Your task to perform on an android device: View the shopping cart on amazon.com. Add "amazon basics triple a" to the cart on amazon.com, then select checkout. Image 0: 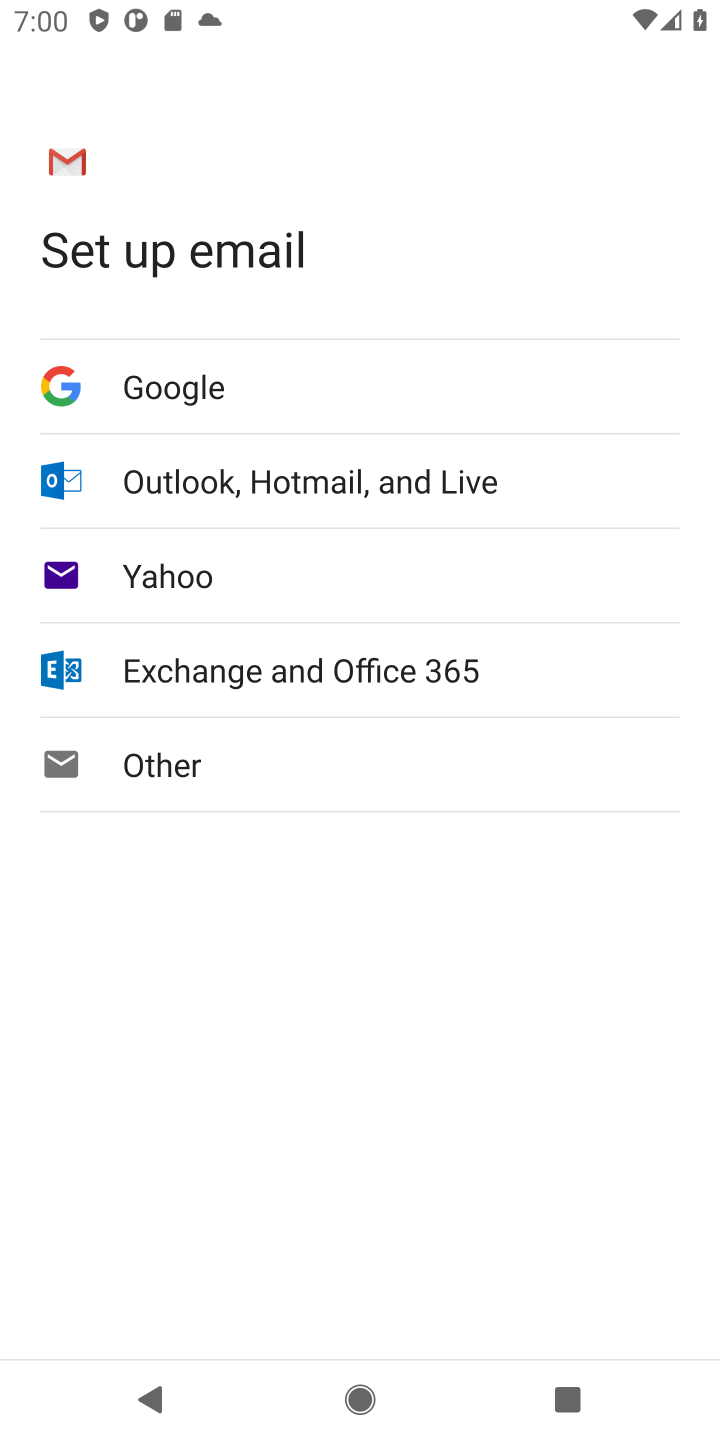
Step 0: press home button
Your task to perform on an android device: View the shopping cart on amazon.com. Add "amazon basics triple a" to the cart on amazon.com, then select checkout. Image 1: 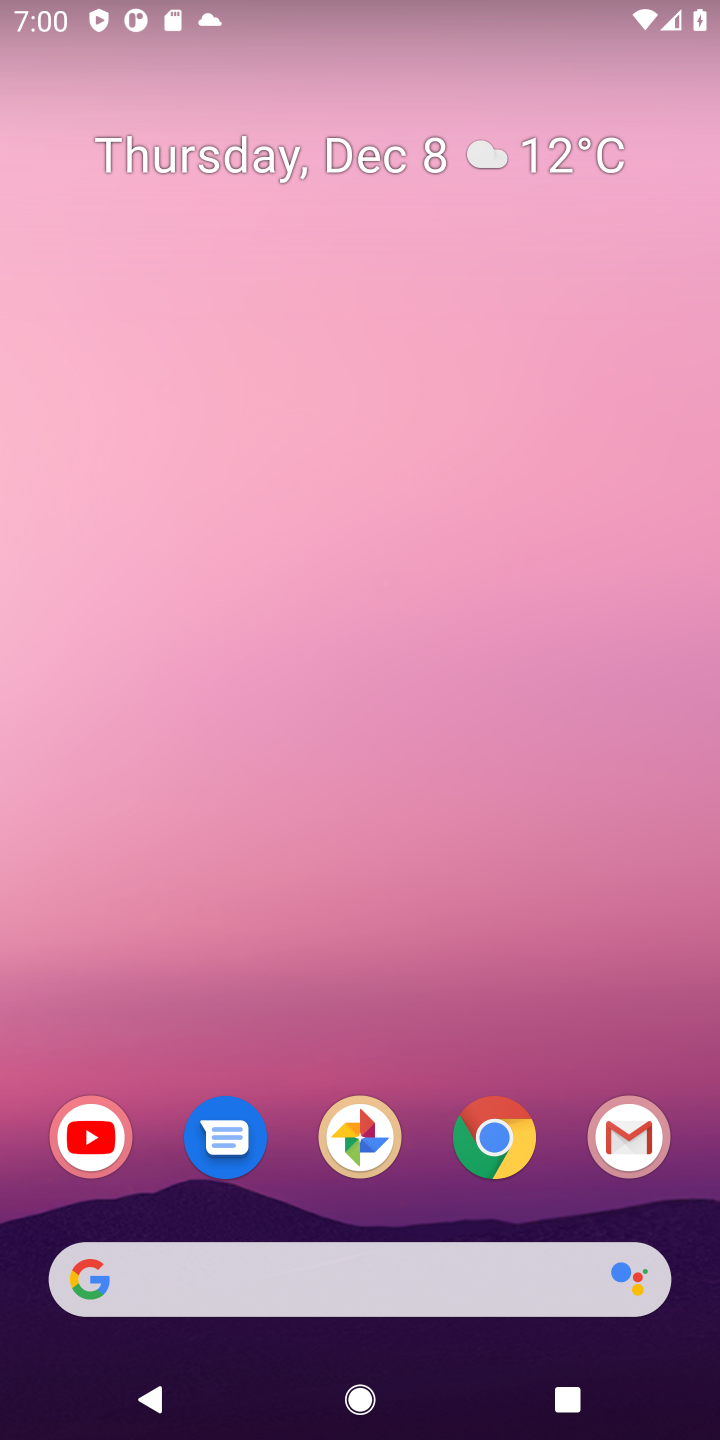
Step 1: click (482, 1157)
Your task to perform on an android device: View the shopping cart on amazon.com. Add "amazon basics triple a" to the cart on amazon.com, then select checkout. Image 2: 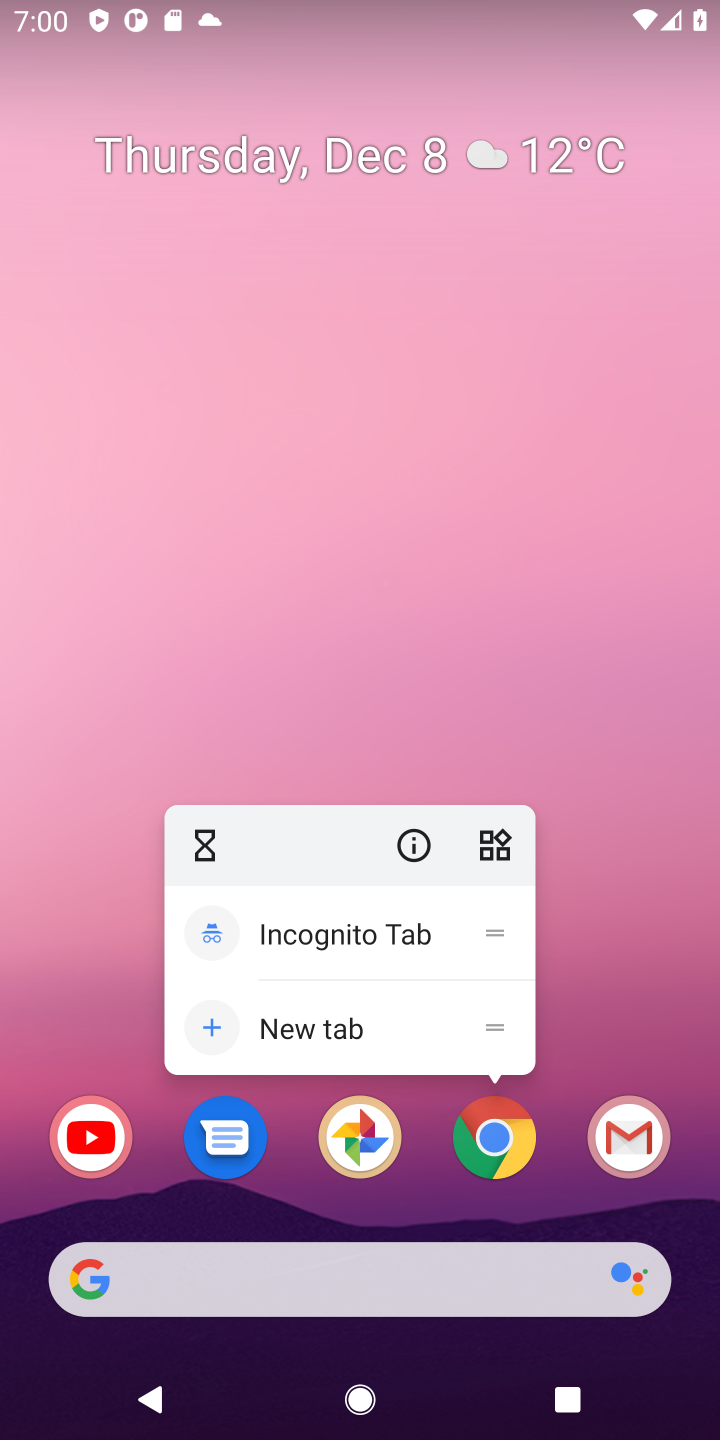
Step 2: click (499, 1121)
Your task to perform on an android device: View the shopping cart on amazon.com. Add "amazon basics triple a" to the cart on amazon.com, then select checkout. Image 3: 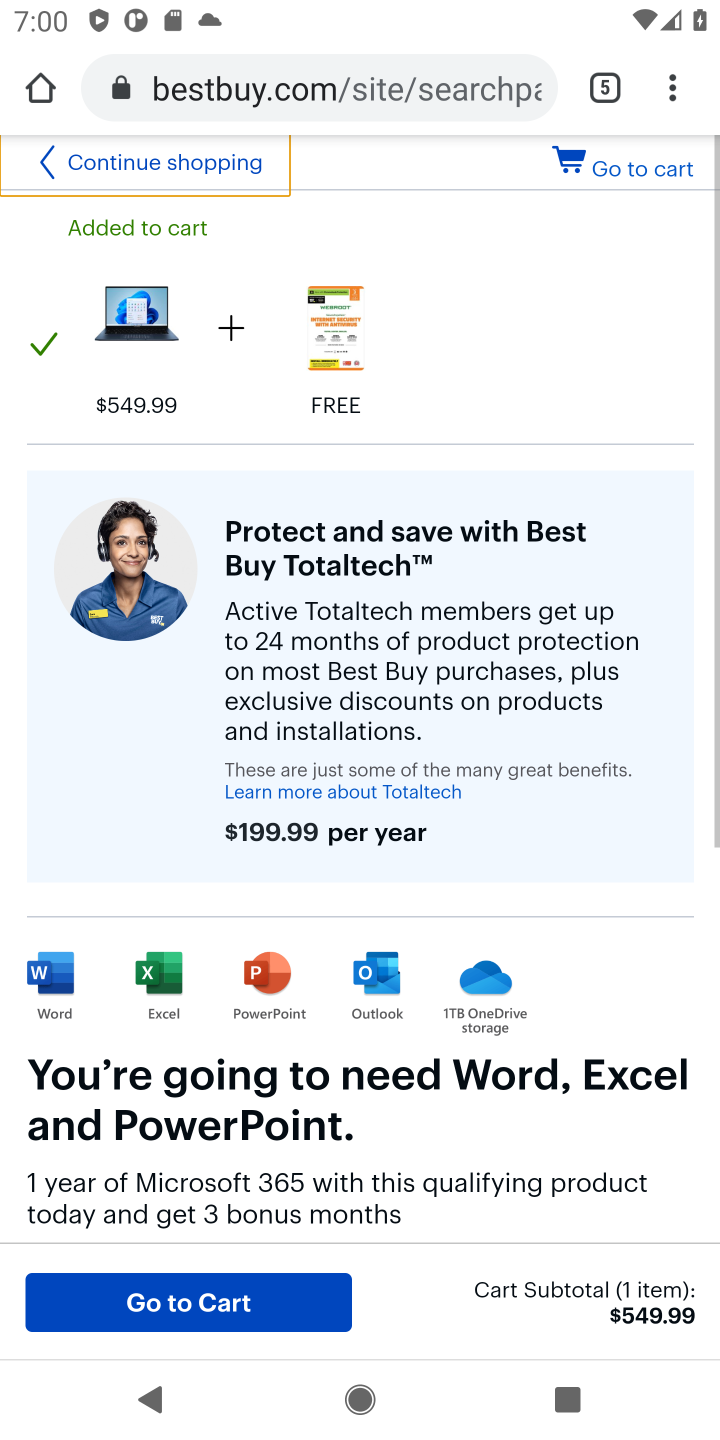
Step 3: click (609, 83)
Your task to perform on an android device: View the shopping cart on amazon.com. Add "amazon basics triple a" to the cart on amazon.com, then select checkout. Image 4: 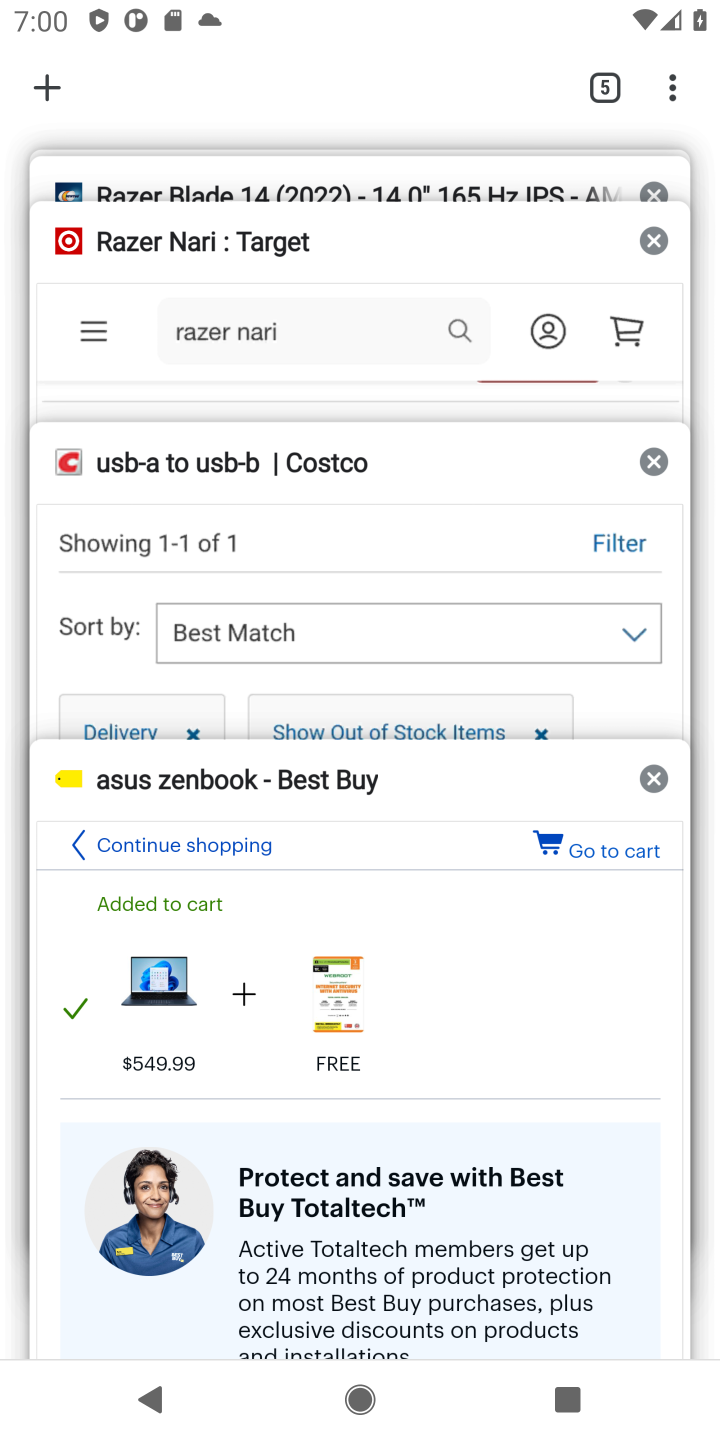
Step 4: click (54, 98)
Your task to perform on an android device: View the shopping cart on amazon.com. Add "amazon basics triple a" to the cart on amazon.com, then select checkout. Image 5: 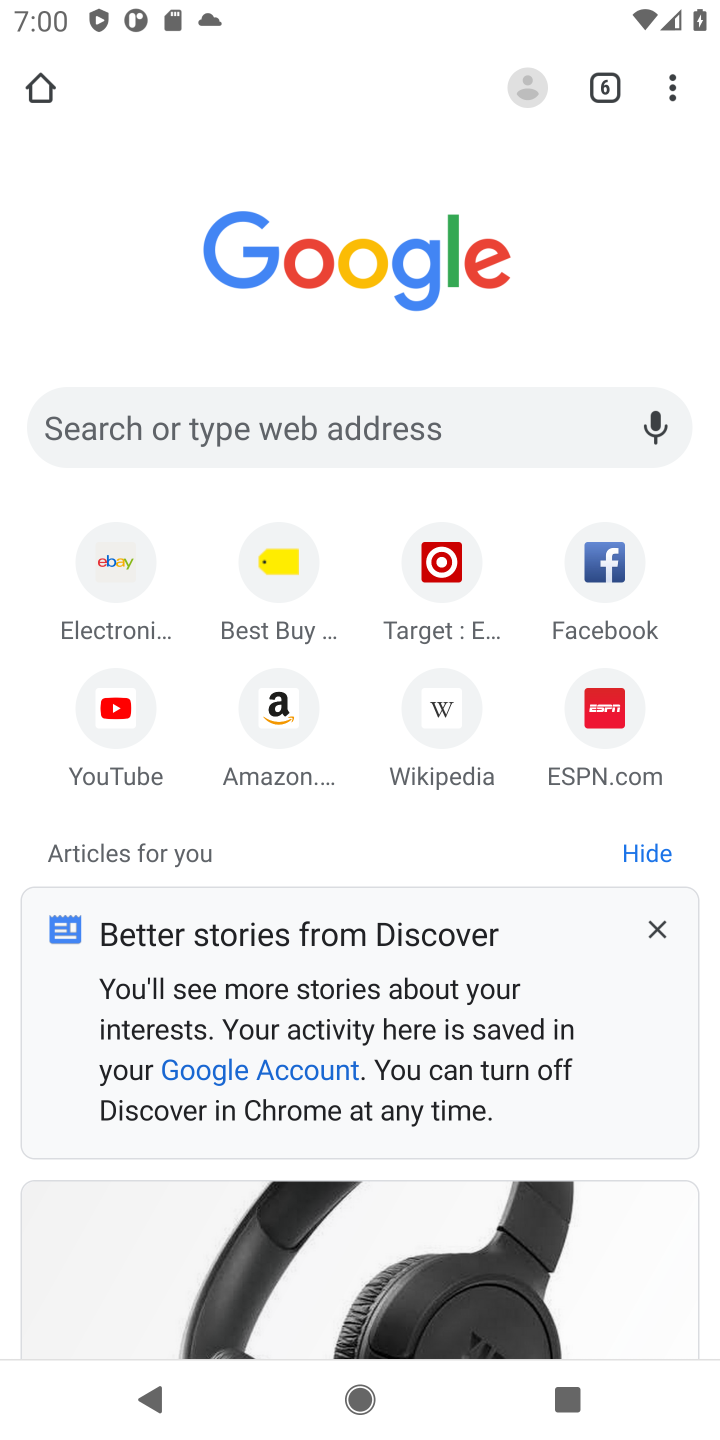
Step 5: click (261, 712)
Your task to perform on an android device: View the shopping cart on amazon.com. Add "amazon basics triple a" to the cart on amazon.com, then select checkout. Image 6: 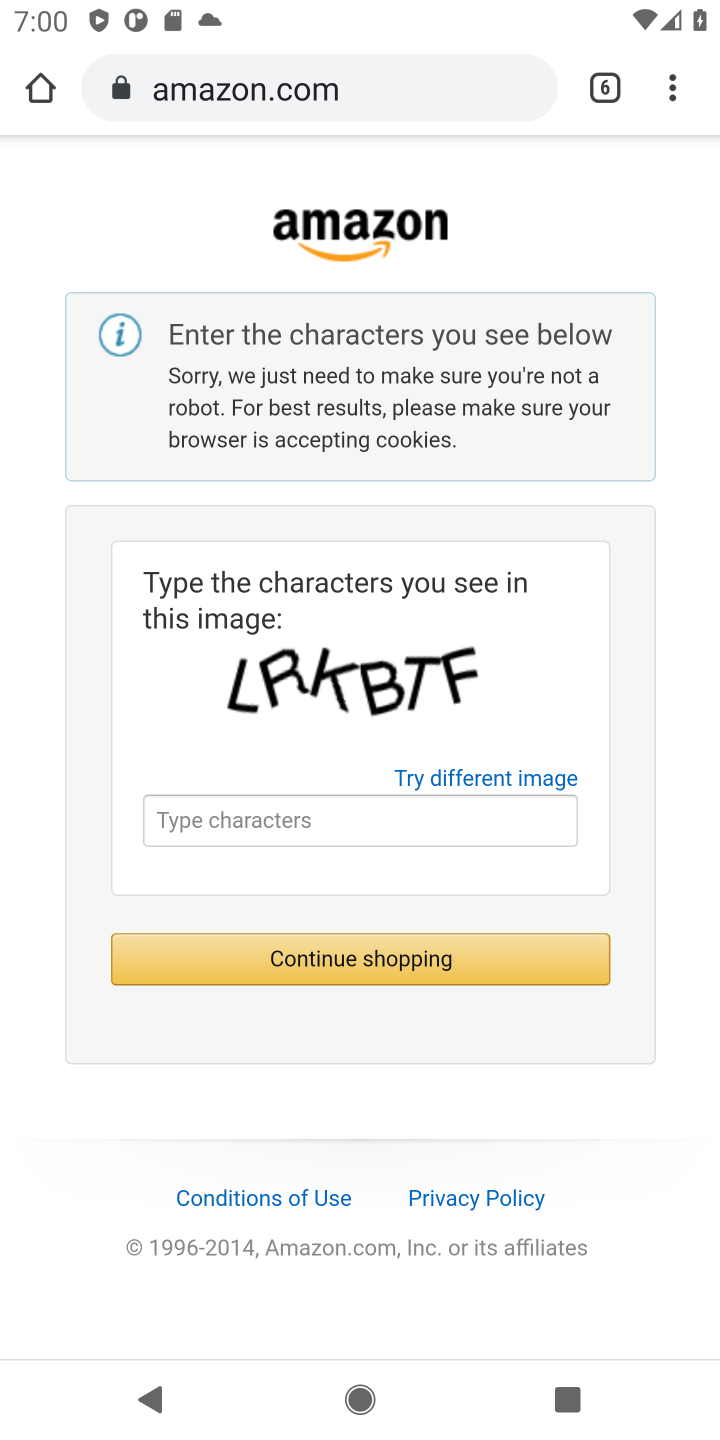
Step 6: click (322, 811)
Your task to perform on an android device: View the shopping cart on amazon.com. Add "amazon basics triple a" to the cart on amazon.com, then select checkout. Image 7: 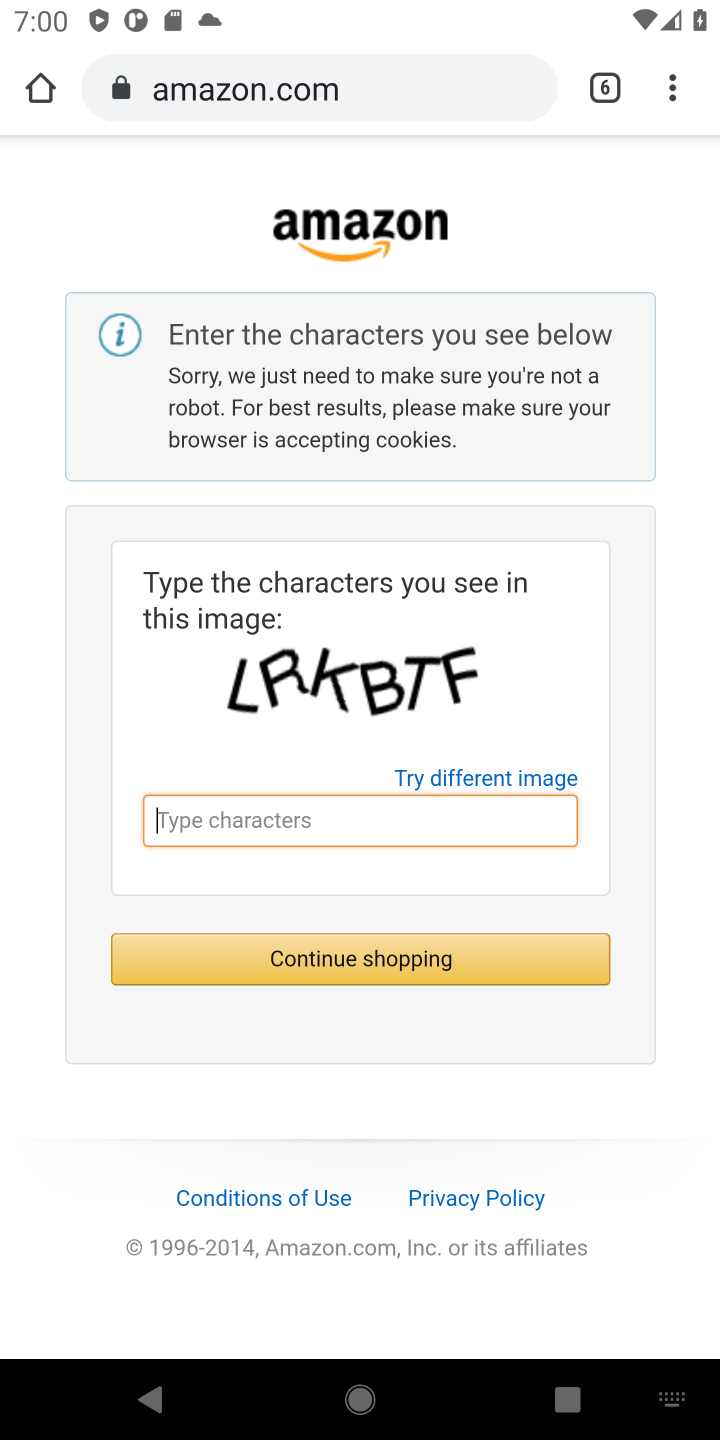
Step 7: type "LRKBTF"
Your task to perform on an android device: View the shopping cart on amazon.com. Add "amazon basics triple a" to the cart on amazon.com, then select checkout. Image 8: 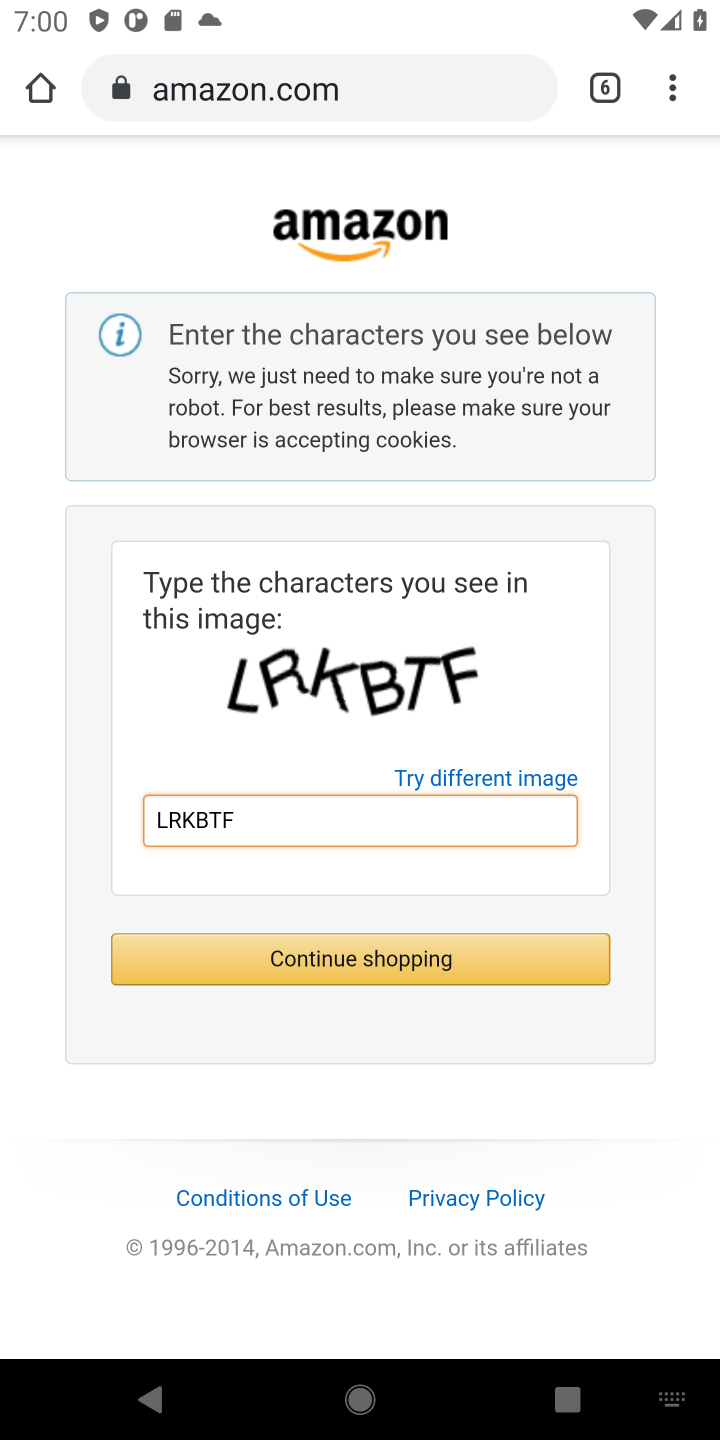
Step 8: click (339, 962)
Your task to perform on an android device: View the shopping cart on amazon.com. Add "amazon basics triple a" to the cart on amazon.com, then select checkout. Image 9: 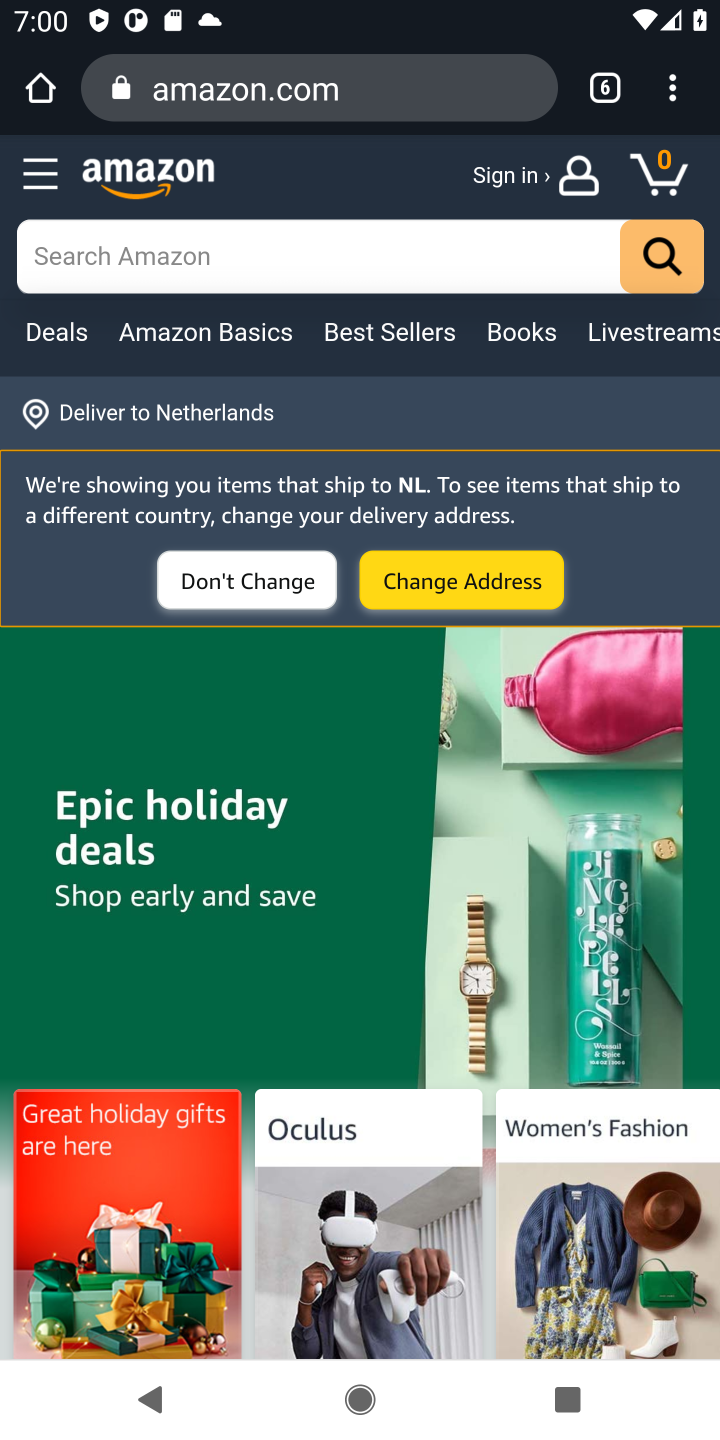
Step 9: click (217, 246)
Your task to perform on an android device: View the shopping cart on amazon.com. Add "amazon basics triple a" to the cart on amazon.com, then select checkout. Image 10: 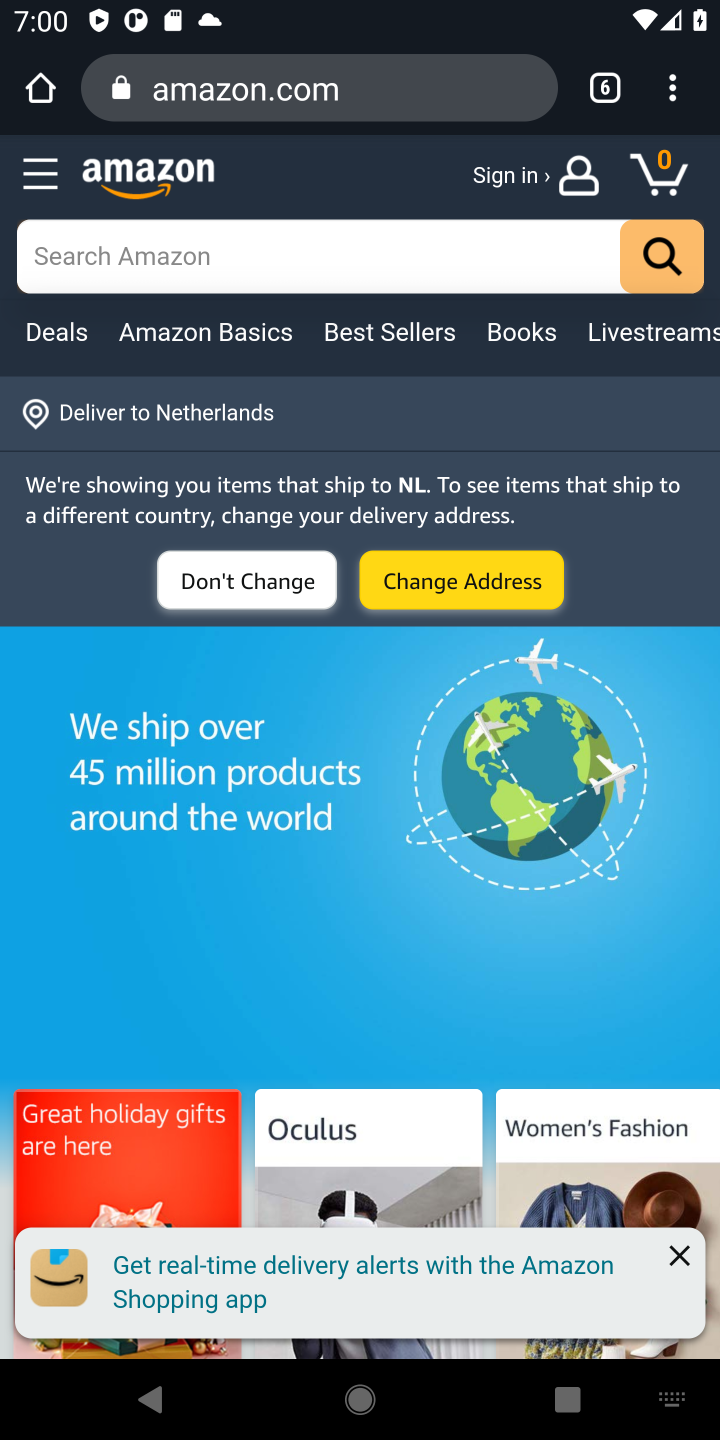
Step 10: type "amazon basics triple a battery"
Your task to perform on an android device: View the shopping cart on amazon.com. Add "amazon basics triple a" to the cart on amazon.com, then select checkout. Image 11: 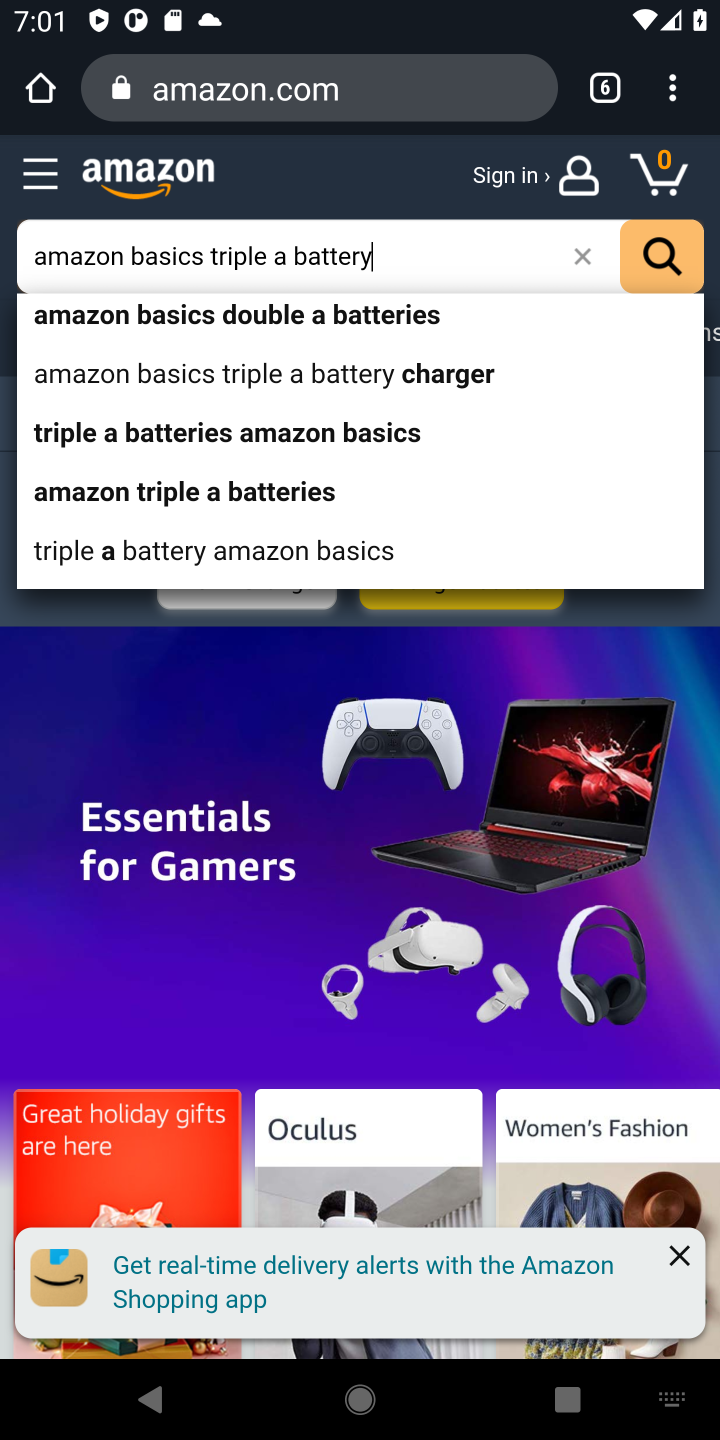
Step 11: click (278, 494)
Your task to perform on an android device: View the shopping cart on amazon.com. Add "amazon basics triple a" to the cart on amazon.com, then select checkout. Image 12: 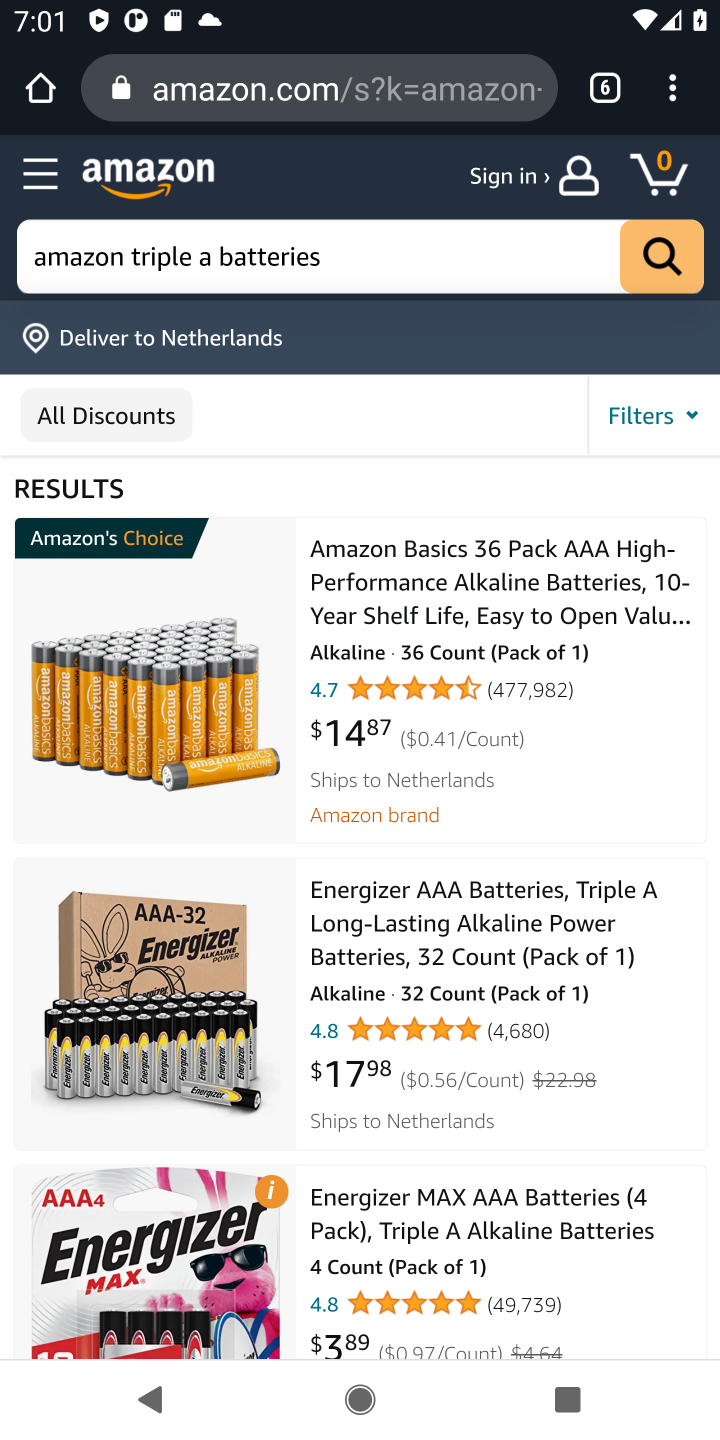
Step 12: click (362, 579)
Your task to perform on an android device: View the shopping cart on amazon.com. Add "amazon basics triple a" to the cart on amazon.com, then select checkout. Image 13: 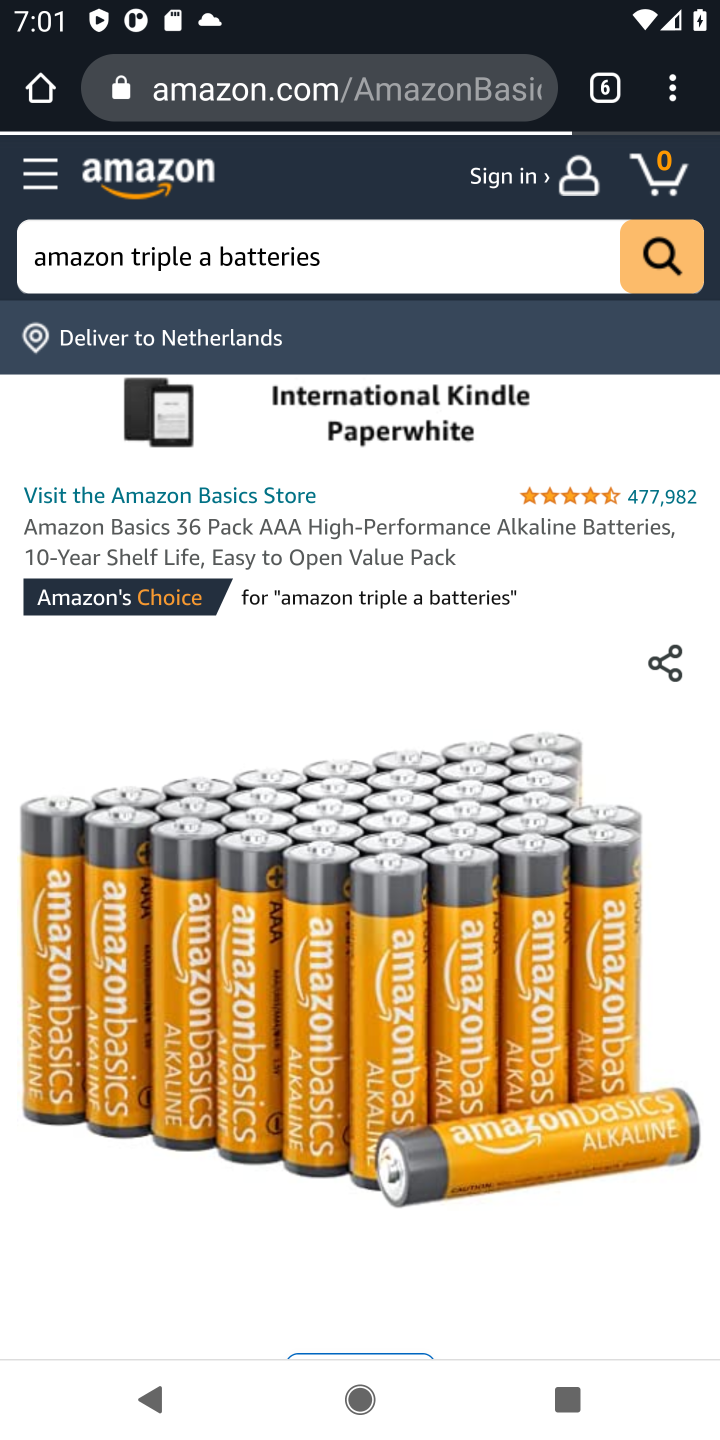
Step 13: drag from (240, 1233) to (457, 180)
Your task to perform on an android device: View the shopping cart on amazon.com. Add "amazon basics triple a" to the cart on amazon.com, then select checkout. Image 14: 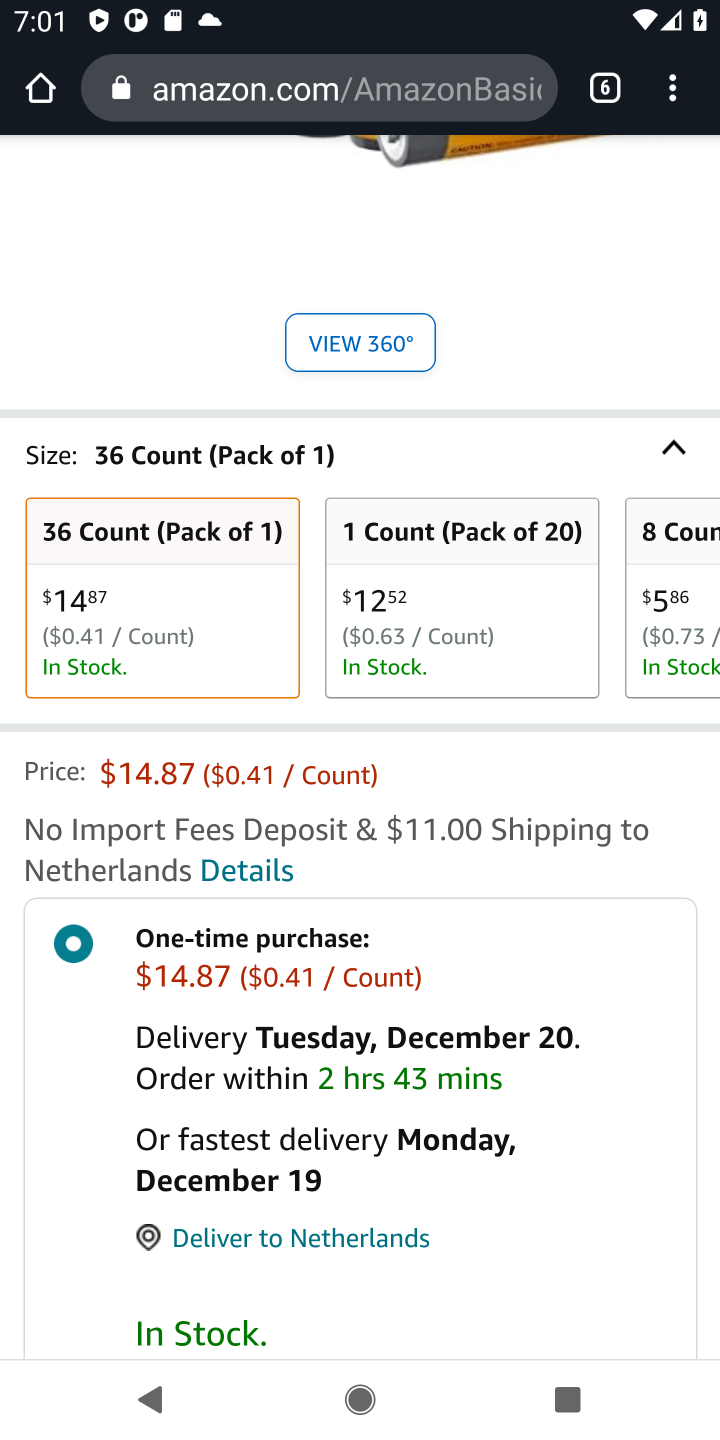
Step 14: drag from (448, 993) to (598, 307)
Your task to perform on an android device: View the shopping cart on amazon.com. Add "amazon basics triple a" to the cart on amazon.com, then select checkout. Image 15: 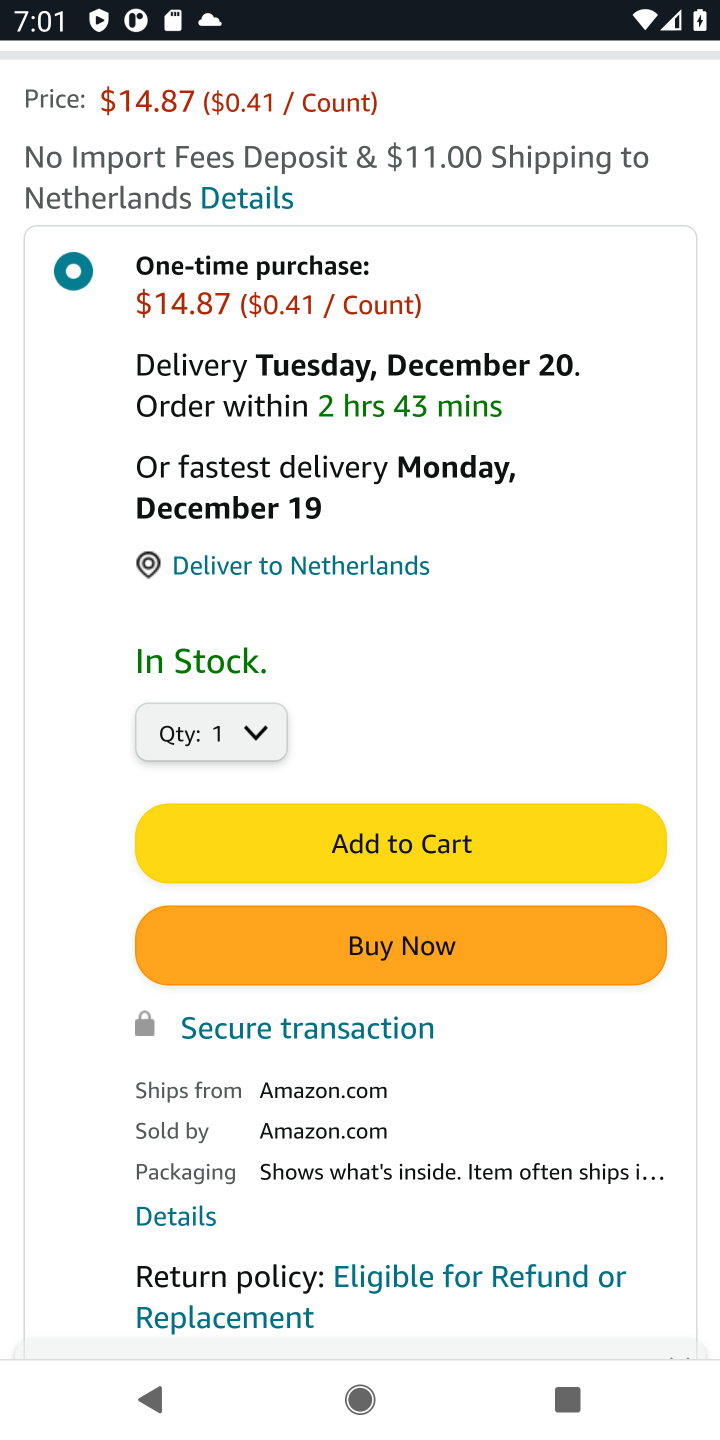
Step 15: click (390, 846)
Your task to perform on an android device: View the shopping cart on amazon.com. Add "amazon basics triple a" to the cart on amazon.com, then select checkout. Image 16: 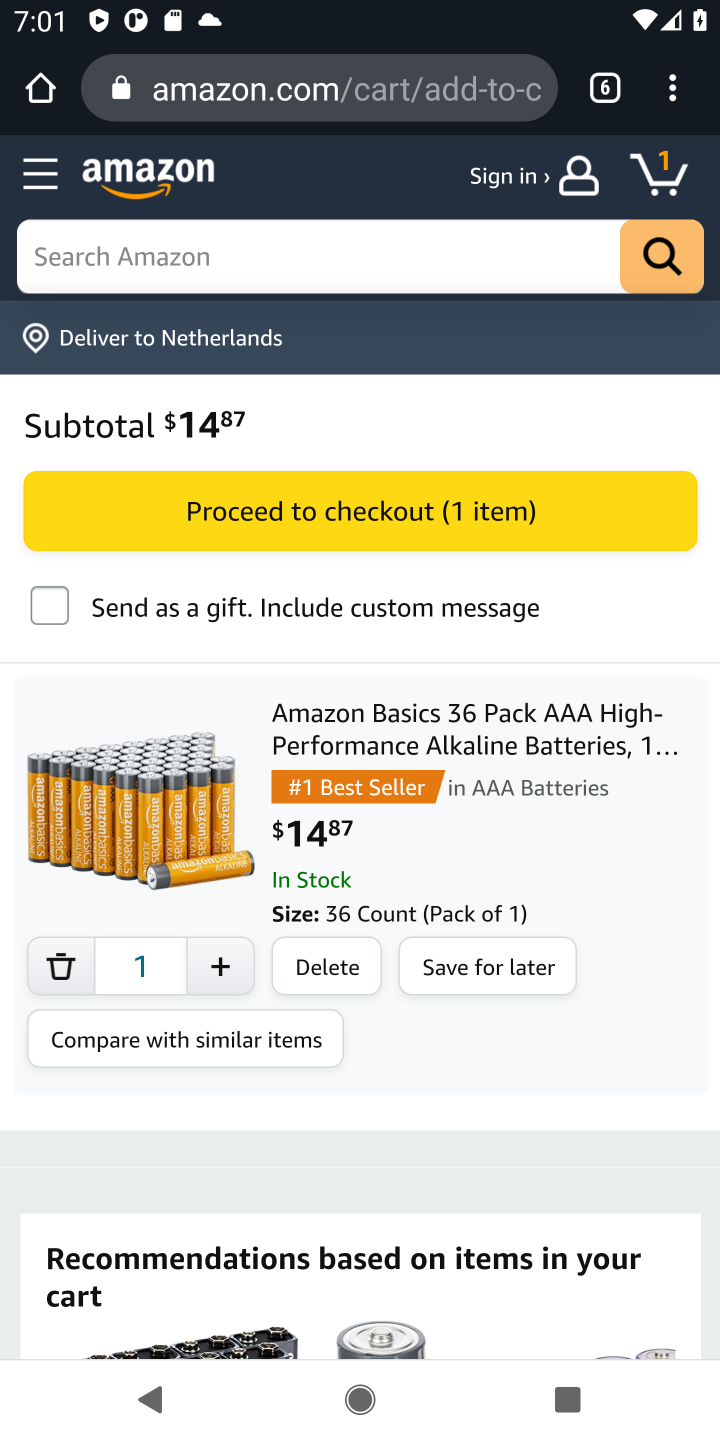
Step 16: task complete